Your task to perform on an android device: toggle pop-ups in chrome Image 0: 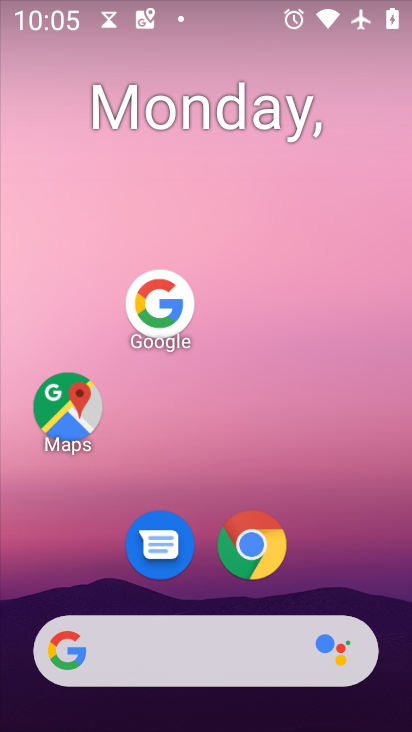
Step 0: press home button
Your task to perform on an android device: toggle pop-ups in chrome Image 1: 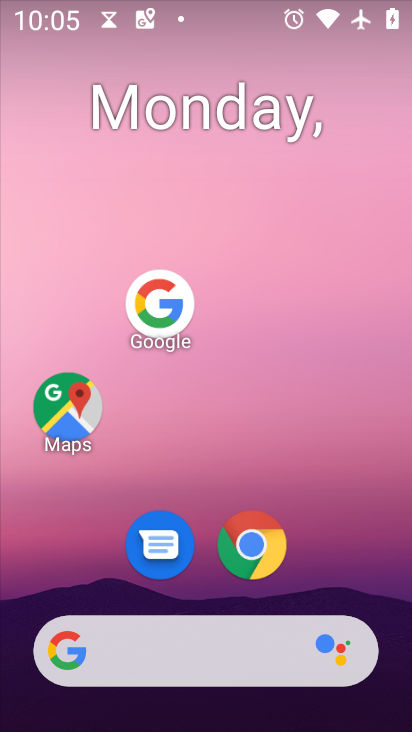
Step 1: click (256, 552)
Your task to perform on an android device: toggle pop-ups in chrome Image 2: 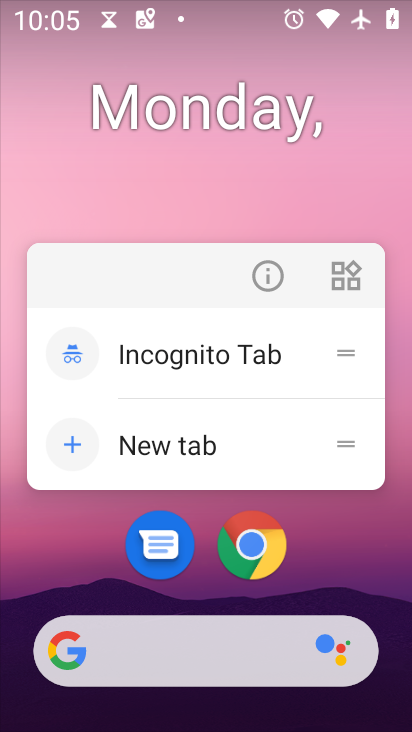
Step 2: click (252, 547)
Your task to perform on an android device: toggle pop-ups in chrome Image 3: 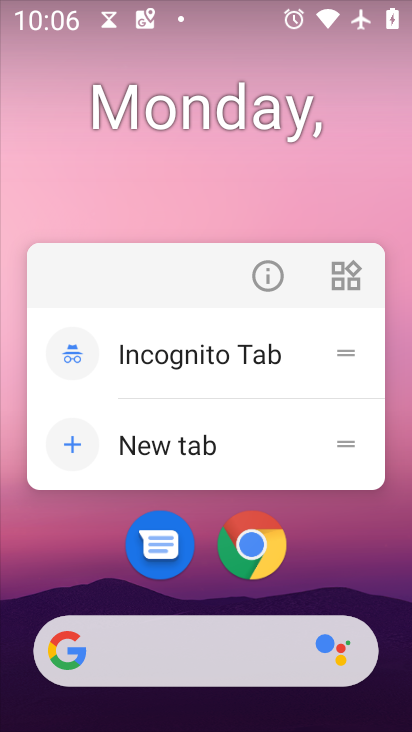
Step 3: click (251, 560)
Your task to perform on an android device: toggle pop-ups in chrome Image 4: 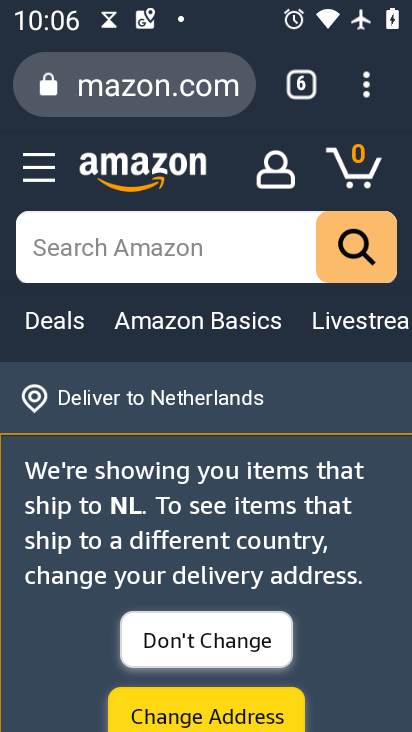
Step 4: drag from (372, 87) to (222, 600)
Your task to perform on an android device: toggle pop-ups in chrome Image 5: 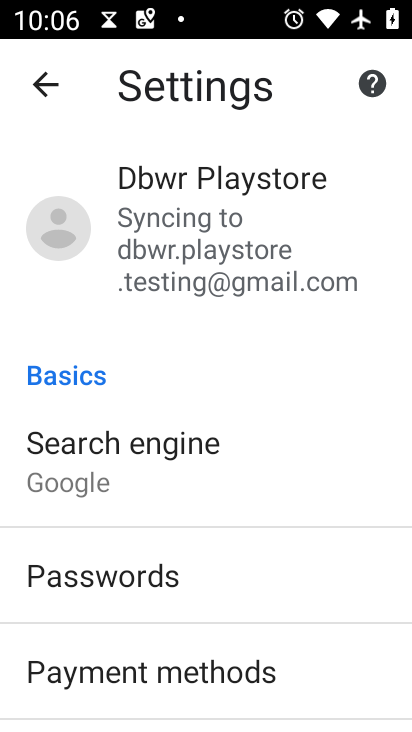
Step 5: drag from (230, 634) to (304, 216)
Your task to perform on an android device: toggle pop-ups in chrome Image 6: 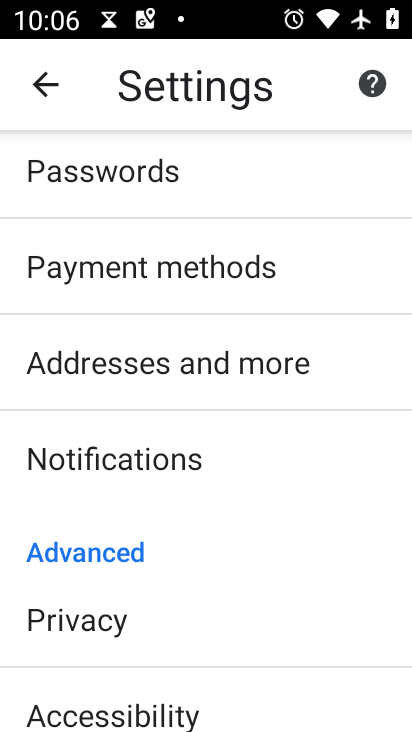
Step 6: drag from (187, 645) to (255, 120)
Your task to perform on an android device: toggle pop-ups in chrome Image 7: 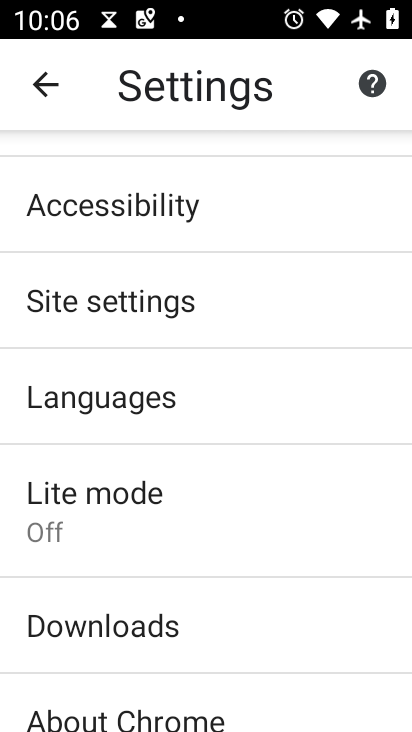
Step 7: click (169, 305)
Your task to perform on an android device: toggle pop-ups in chrome Image 8: 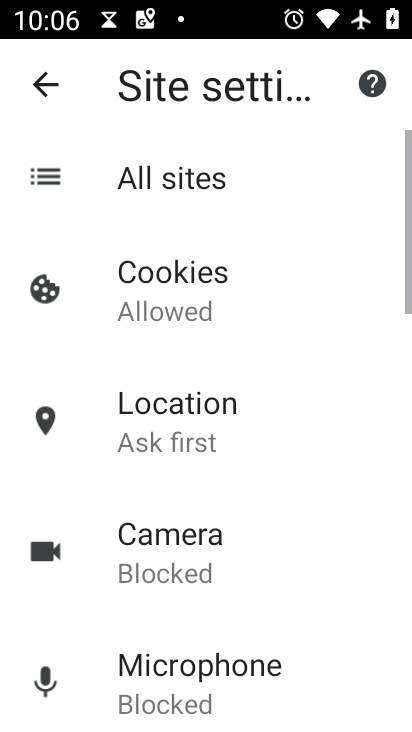
Step 8: drag from (240, 617) to (261, 199)
Your task to perform on an android device: toggle pop-ups in chrome Image 9: 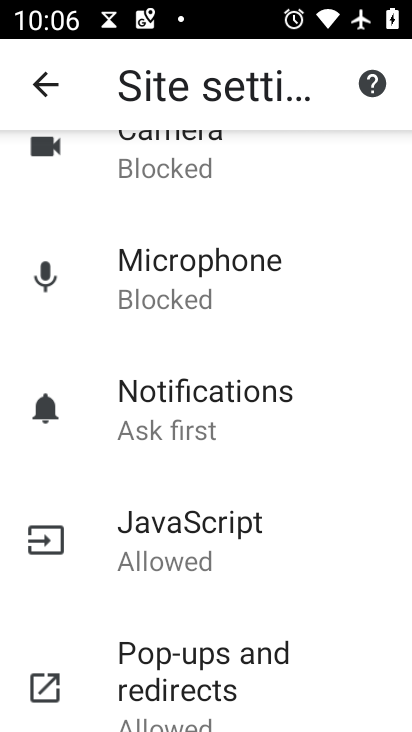
Step 9: click (176, 661)
Your task to perform on an android device: toggle pop-ups in chrome Image 10: 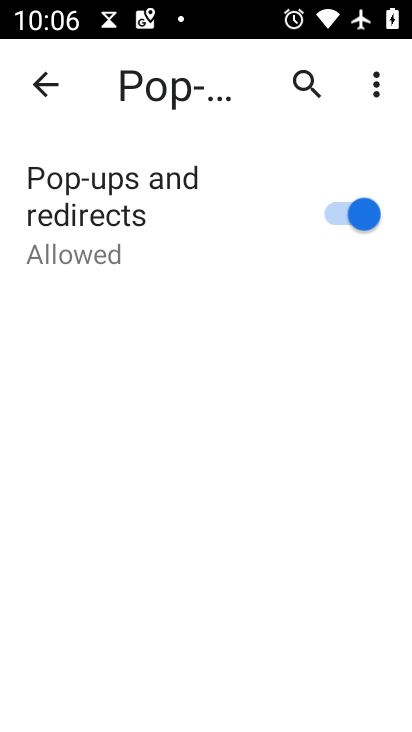
Step 10: click (328, 210)
Your task to perform on an android device: toggle pop-ups in chrome Image 11: 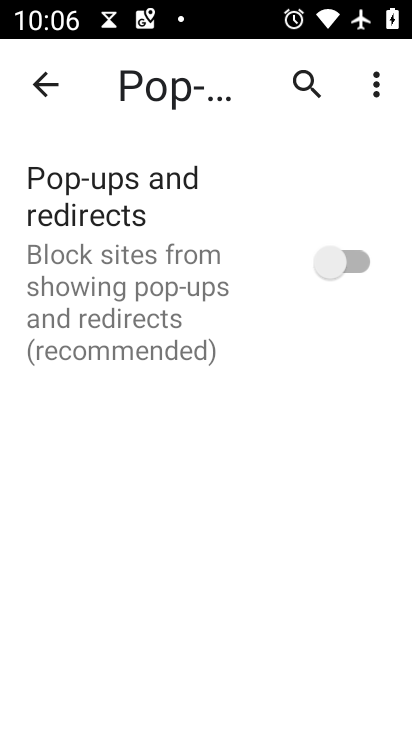
Step 11: task complete